Your task to perform on an android device: refresh tabs in the chrome app Image 0: 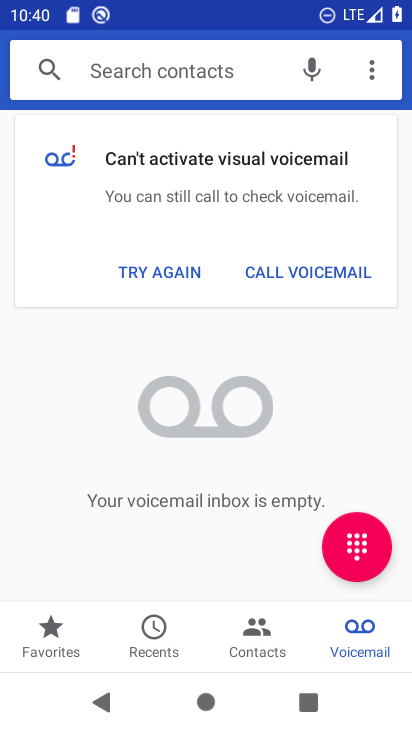
Step 0: press home button
Your task to perform on an android device: refresh tabs in the chrome app Image 1: 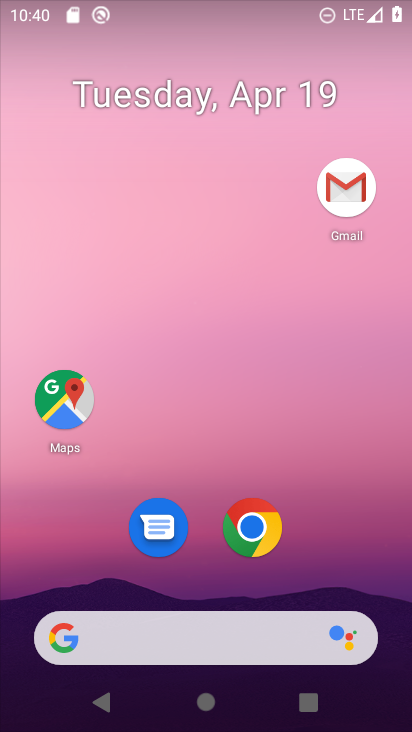
Step 1: click (273, 525)
Your task to perform on an android device: refresh tabs in the chrome app Image 2: 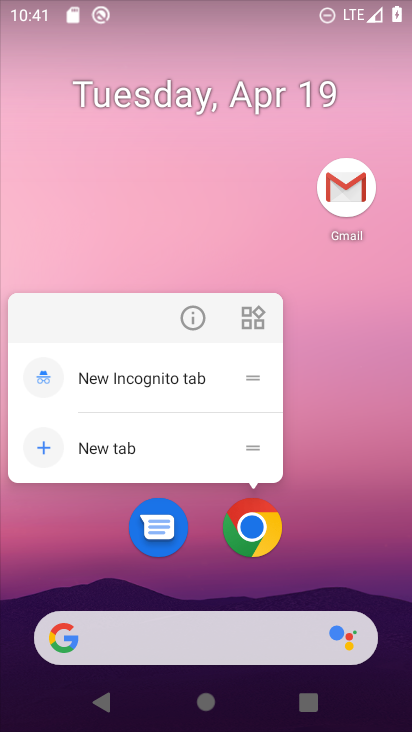
Step 2: click (273, 533)
Your task to perform on an android device: refresh tabs in the chrome app Image 3: 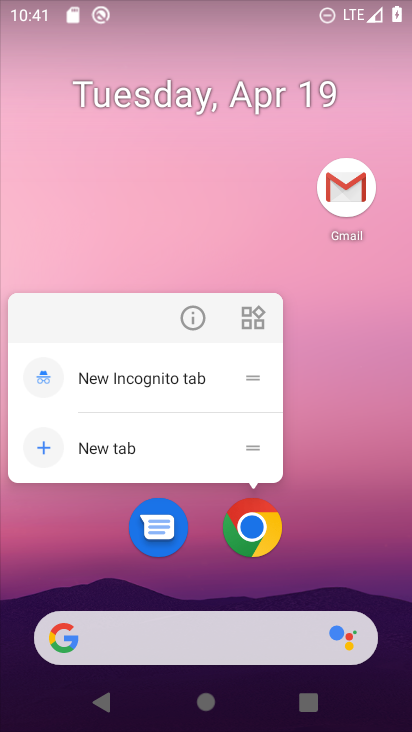
Step 3: click (257, 524)
Your task to perform on an android device: refresh tabs in the chrome app Image 4: 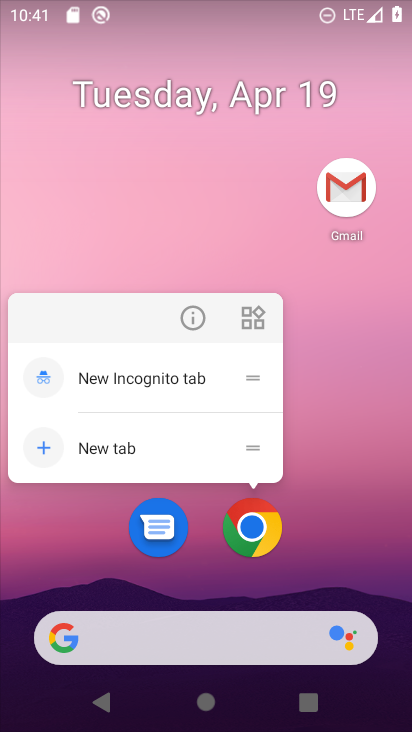
Step 4: drag from (338, 234) to (327, 163)
Your task to perform on an android device: refresh tabs in the chrome app Image 5: 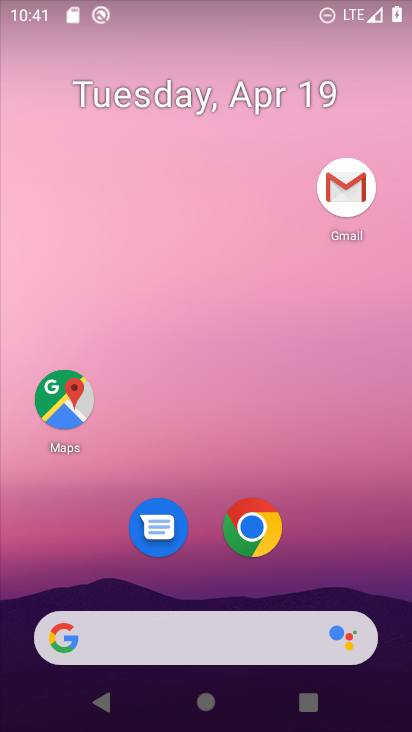
Step 5: drag from (370, 561) to (253, 142)
Your task to perform on an android device: refresh tabs in the chrome app Image 6: 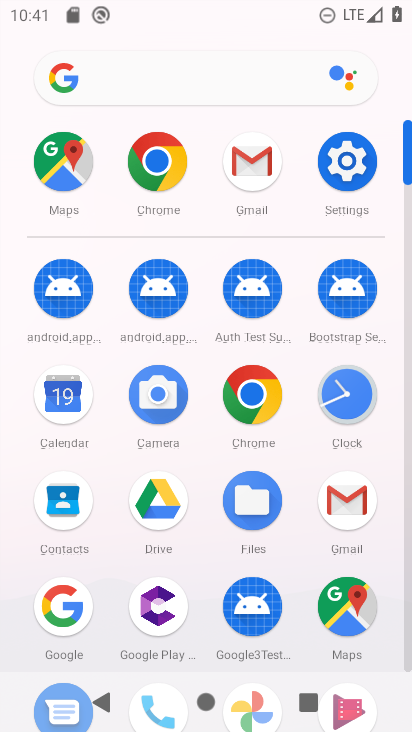
Step 6: click (162, 166)
Your task to perform on an android device: refresh tabs in the chrome app Image 7: 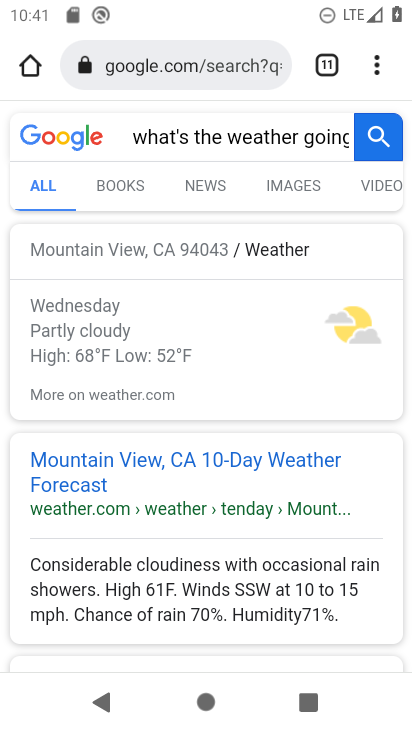
Step 7: click (380, 94)
Your task to perform on an android device: refresh tabs in the chrome app Image 8: 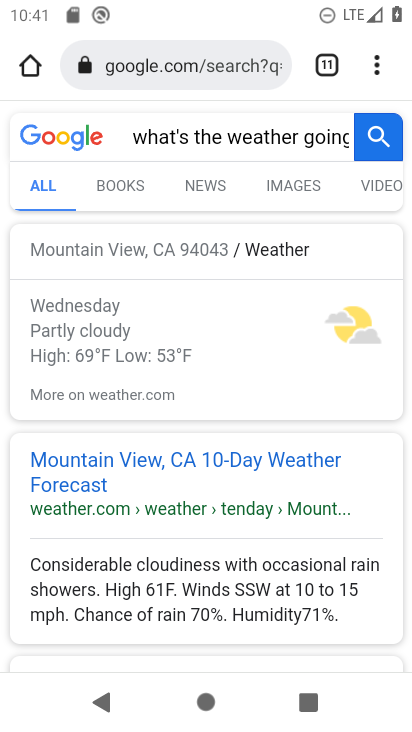
Step 8: task complete